Your task to perform on an android device: turn smart compose on in the gmail app Image 0: 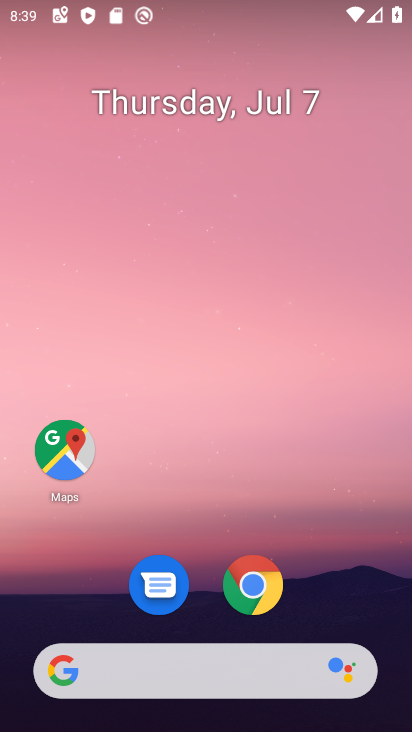
Step 0: drag from (231, 508) to (181, 120)
Your task to perform on an android device: turn smart compose on in the gmail app Image 1: 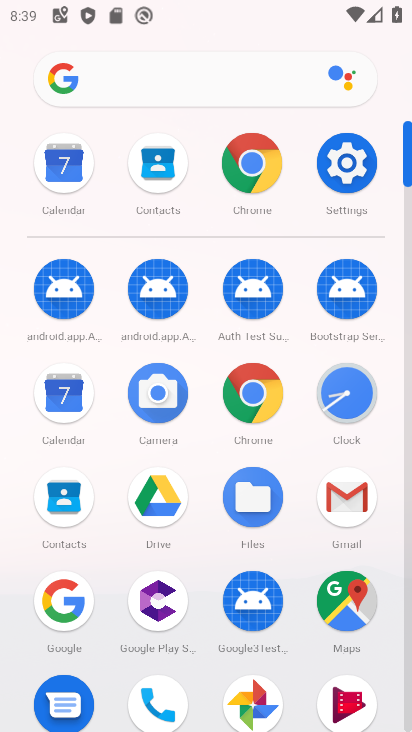
Step 1: click (341, 503)
Your task to perform on an android device: turn smart compose on in the gmail app Image 2: 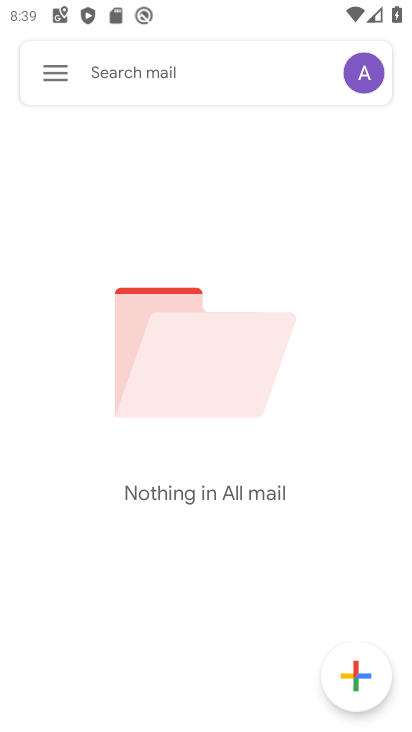
Step 2: click (61, 73)
Your task to perform on an android device: turn smart compose on in the gmail app Image 3: 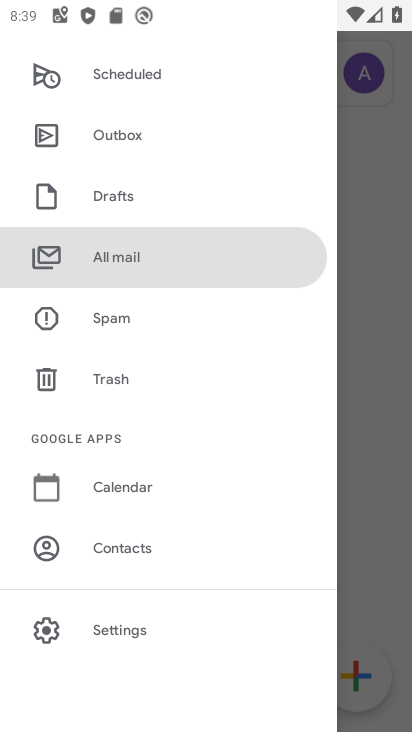
Step 3: click (127, 624)
Your task to perform on an android device: turn smart compose on in the gmail app Image 4: 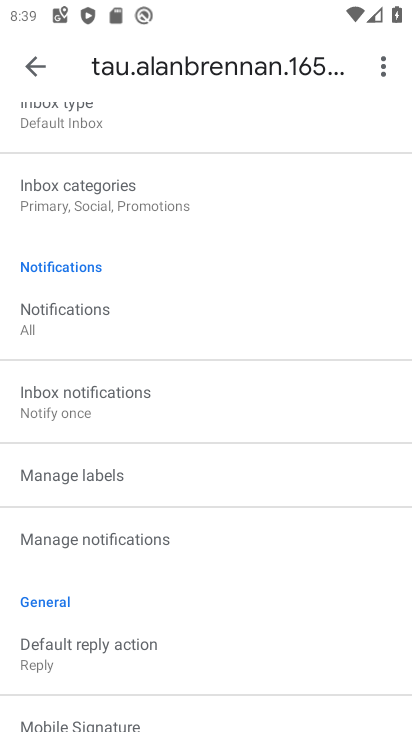
Step 4: task complete